Your task to perform on an android device: Open Wikipedia Image 0: 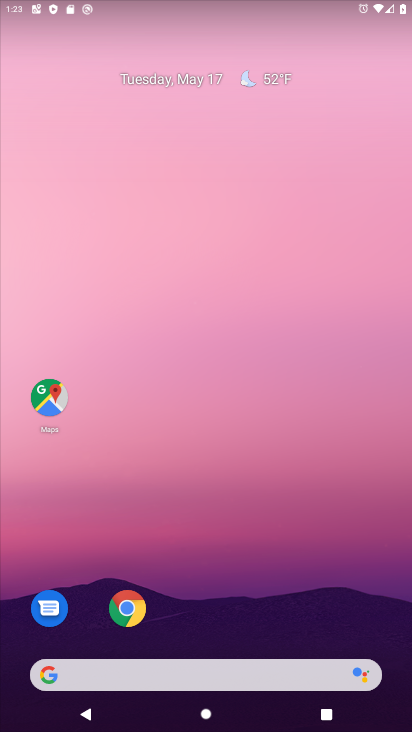
Step 0: drag from (241, 649) to (208, 182)
Your task to perform on an android device: Open Wikipedia Image 1: 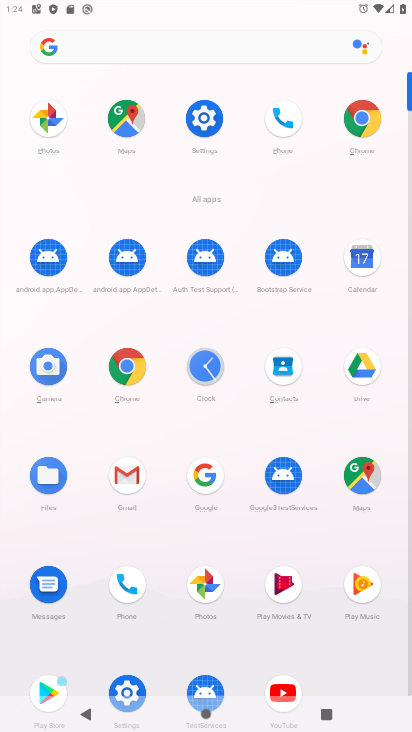
Step 1: click (364, 114)
Your task to perform on an android device: Open Wikipedia Image 2: 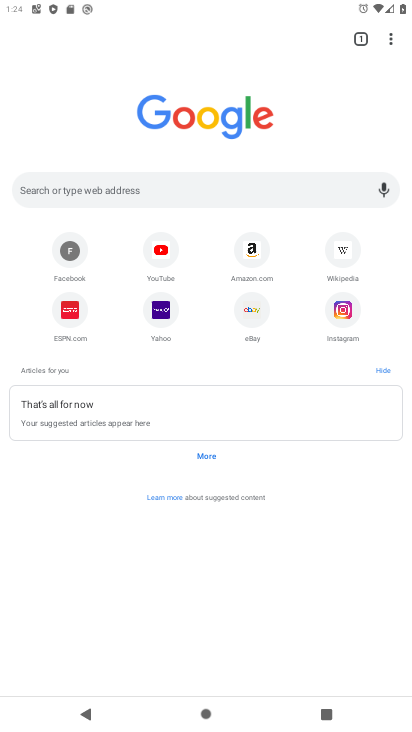
Step 2: click (339, 243)
Your task to perform on an android device: Open Wikipedia Image 3: 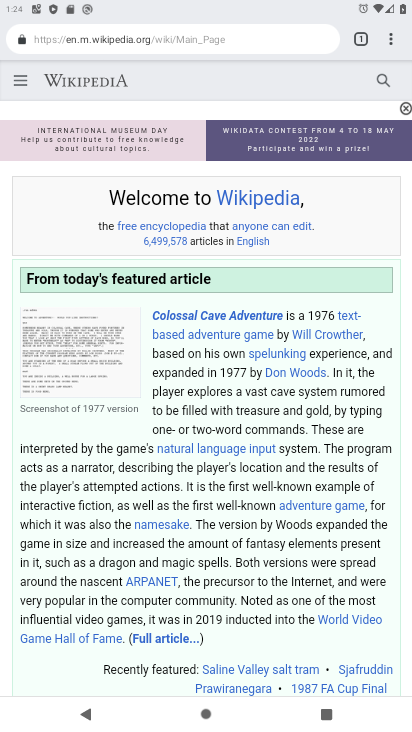
Step 3: task complete